Your task to perform on an android device: When is my next meeting? Image 0: 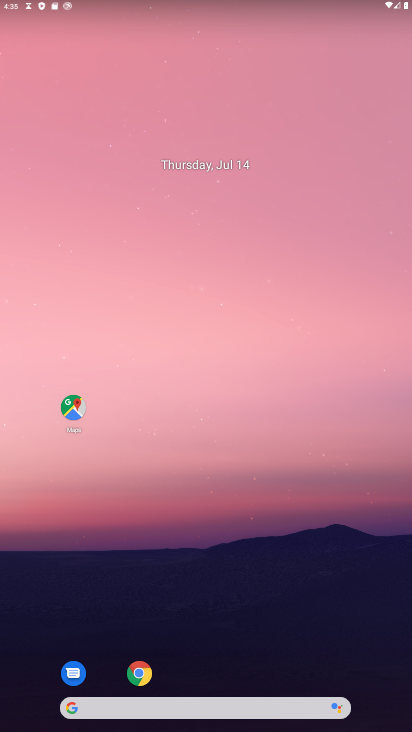
Step 0: drag from (236, 319) to (206, 199)
Your task to perform on an android device: When is my next meeting? Image 1: 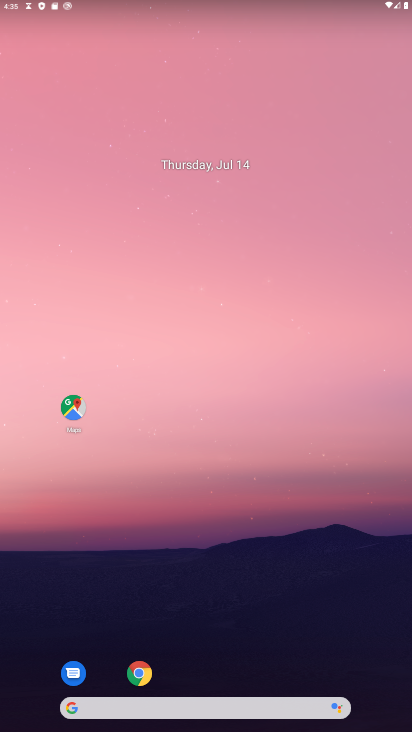
Step 1: drag from (175, 325) to (154, 85)
Your task to perform on an android device: When is my next meeting? Image 2: 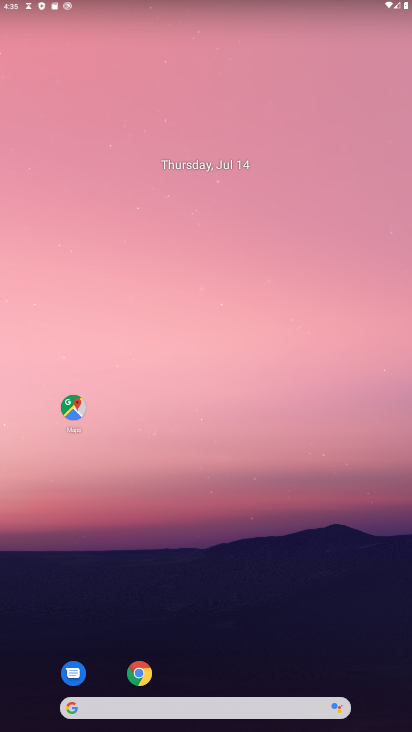
Step 2: drag from (161, 281) to (71, 12)
Your task to perform on an android device: When is my next meeting? Image 3: 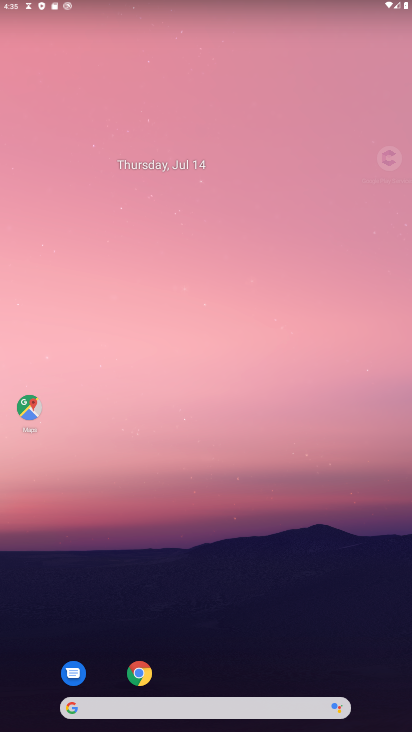
Step 3: drag from (169, 439) to (144, 78)
Your task to perform on an android device: When is my next meeting? Image 4: 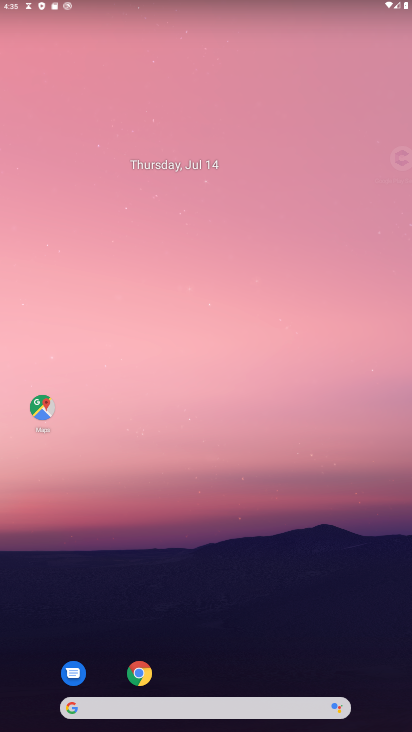
Step 4: drag from (206, 516) to (137, 143)
Your task to perform on an android device: When is my next meeting? Image 5: 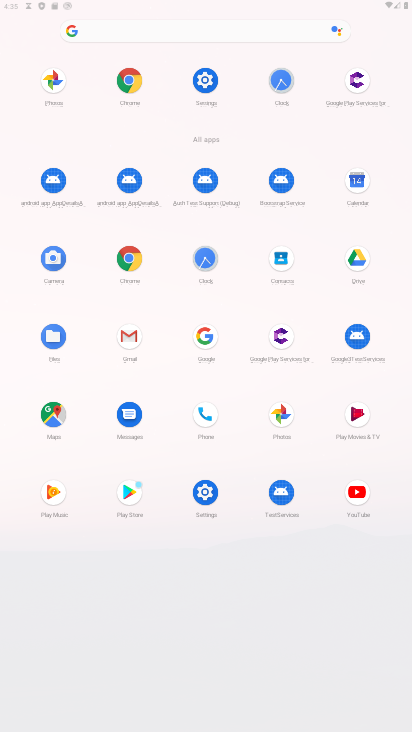
Step 5: drag from (175, 502) to (58, 18)
Your task to perform on an android device: When is my next meeting? Image 6: 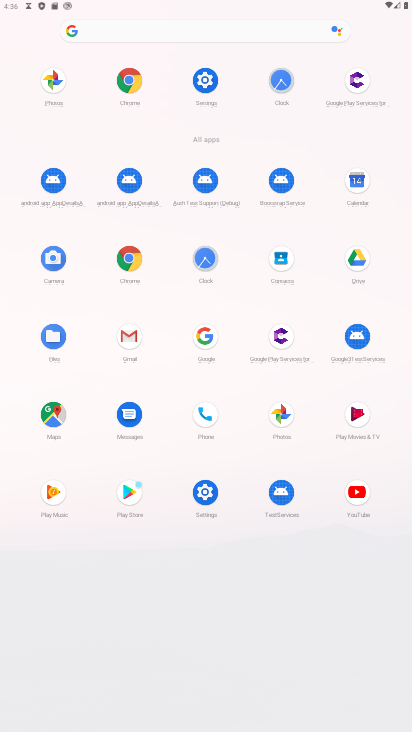
Step 6: click (276, 86)
Your task to perform on an android device: When is my next meeting? Image 7: 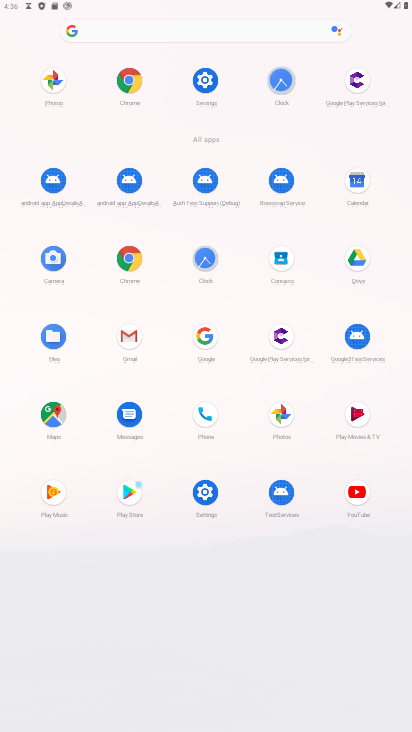
Step 7: click (283, 82)
Your task to perform on an android device: When is my next meeting? Image 8: 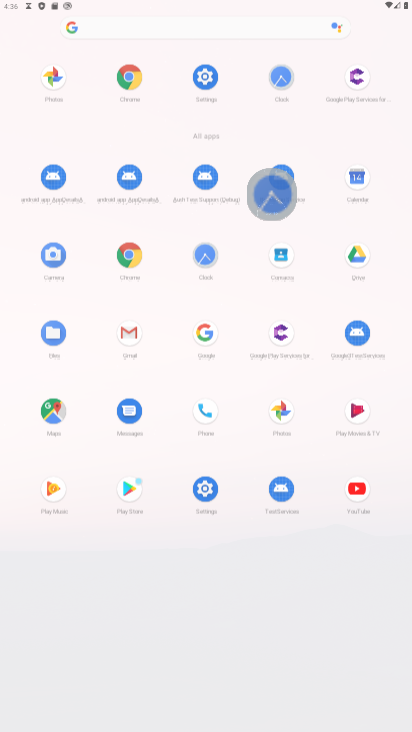
Step 8: click (283, 82)
Your task to perform on an android device: When is my next meeting? Image 9: 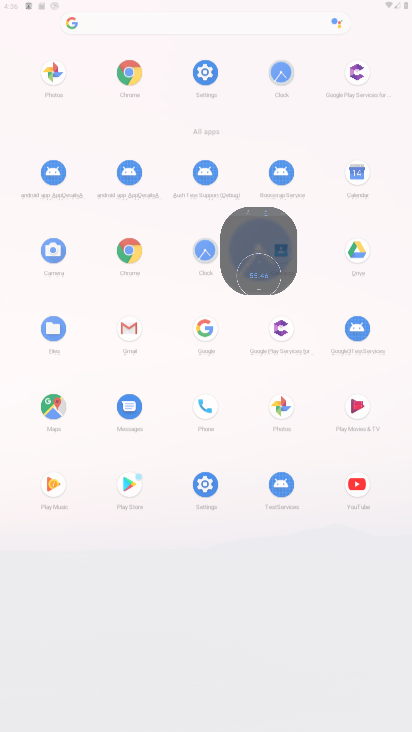
Step 9: click (283, 82)
Your task to perform on an android device: When is my next meeting? Image 10: 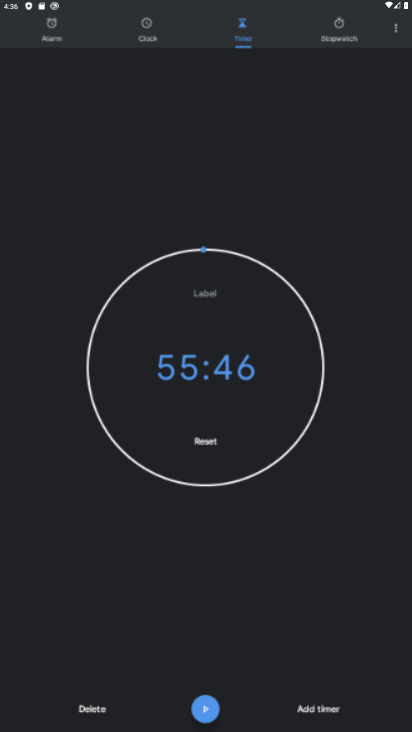
Step 10: click (283, 82)
Your task to perform on an android device: When is my next meeting? Image 11: 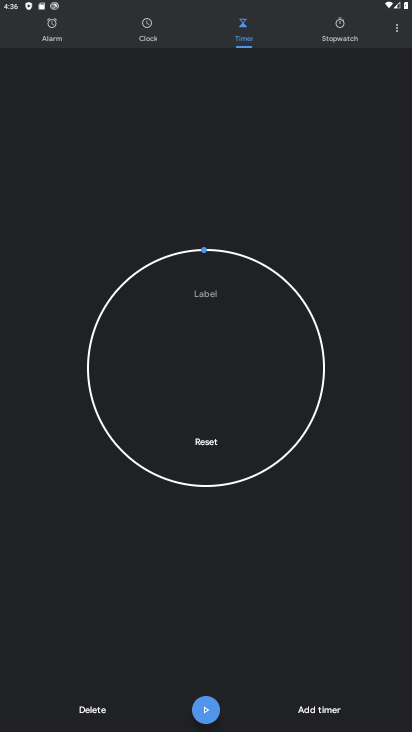
Step 11: press back button
Your task to perform on an android device: When is my next meeting? Image 12: 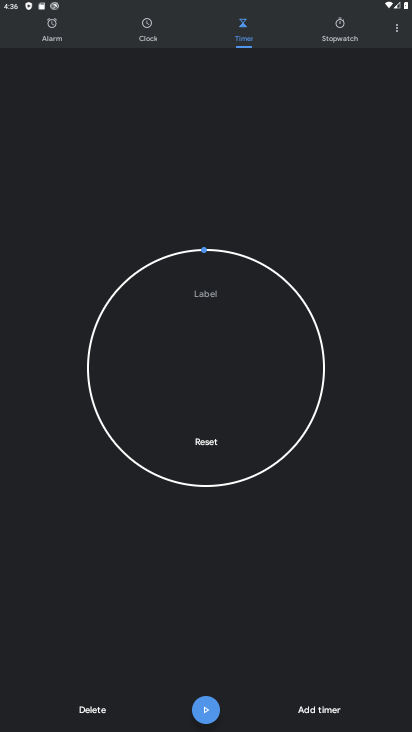
Step 12: press back button
Your task to perform on an android device: When is my next meeting? Image 13: 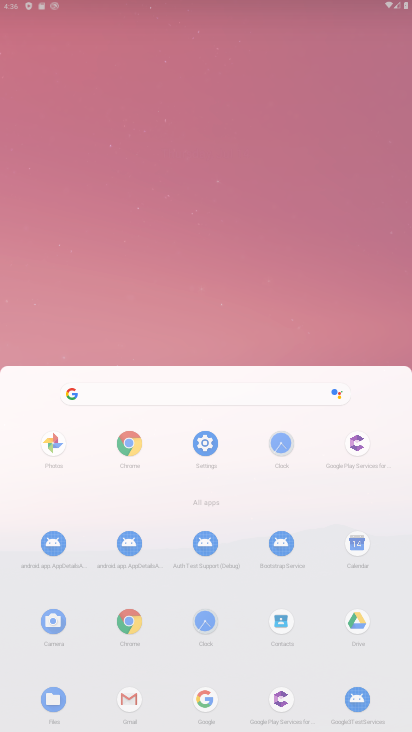
Step 13: press back button
Your task to perform on an android device: When is my next meeting? Image 14: 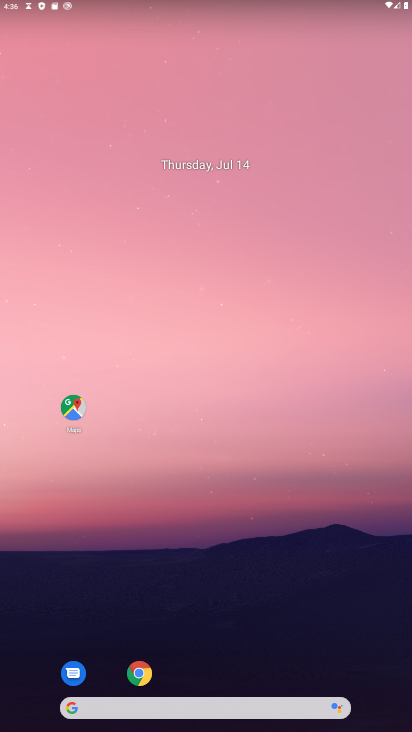
Step 14: drag from (287, 609) to (170, 146)
Your task to perform on an android device: When is my next meeting? Image 15: 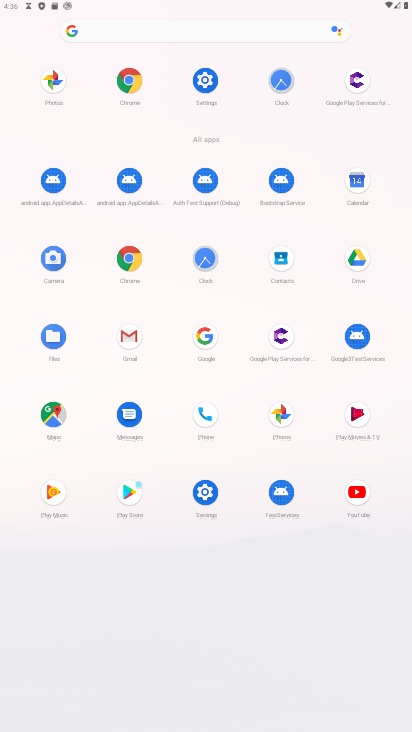
Step 15: click (196, 254)
Your task to perform on an android device: When is my next meeting? Image 16: 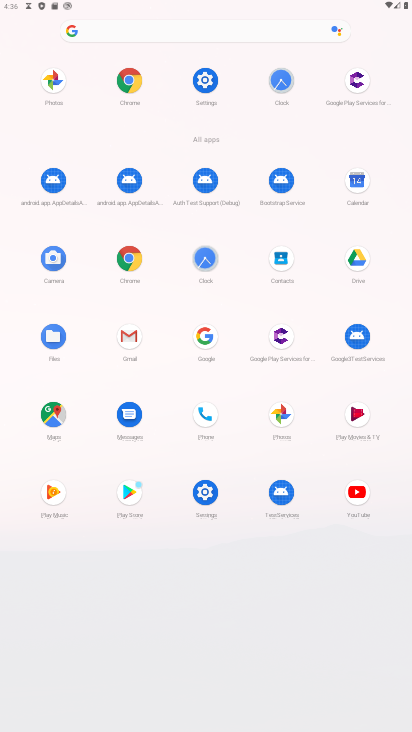
Step 16: click (196, 253)
Your task to perform on an android device: When is my next meeting? Image 17: 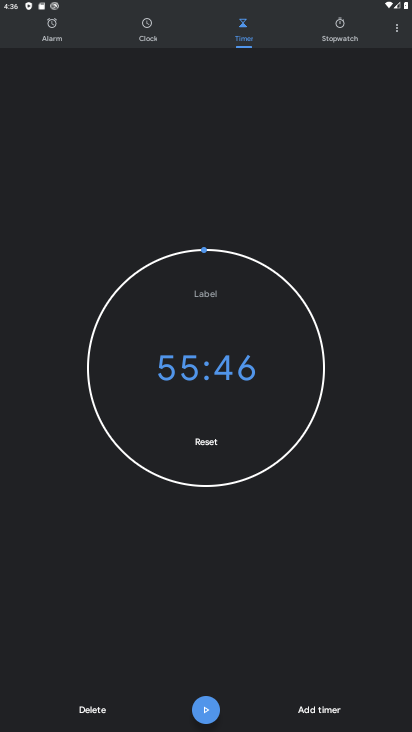
Step 17: press back button
Your task to perform on an android device: When is my next meeting? Image 18: 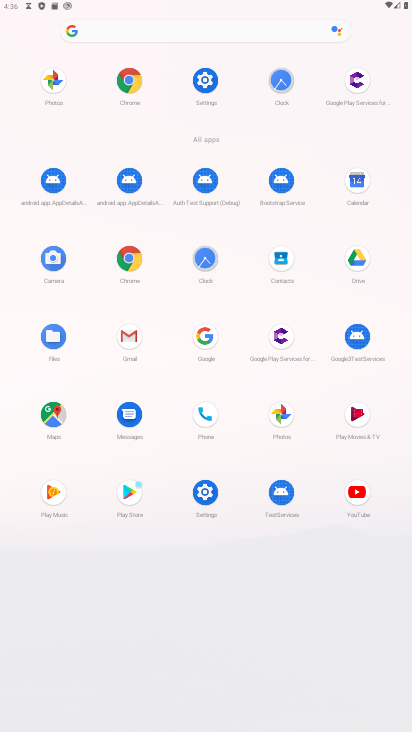
Step 18: click (356, 178)
Your task to perform on an android device: When is my next meeting? Image 19: 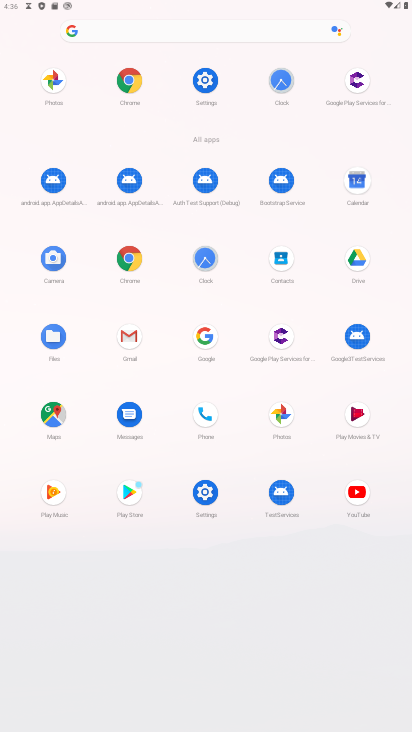
Step 19: click (359, 181)
Your task to perform on an android device: When is my next meeting? Image 20: 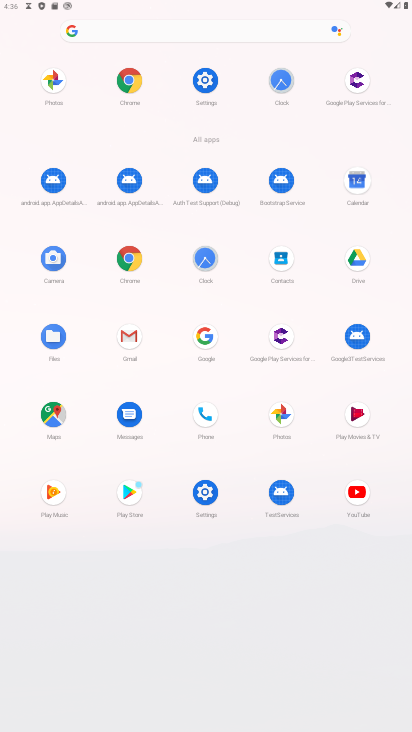
Step 20: click (359, 182)
Your task to perform on an android device: When is my next meeting? Image 21: 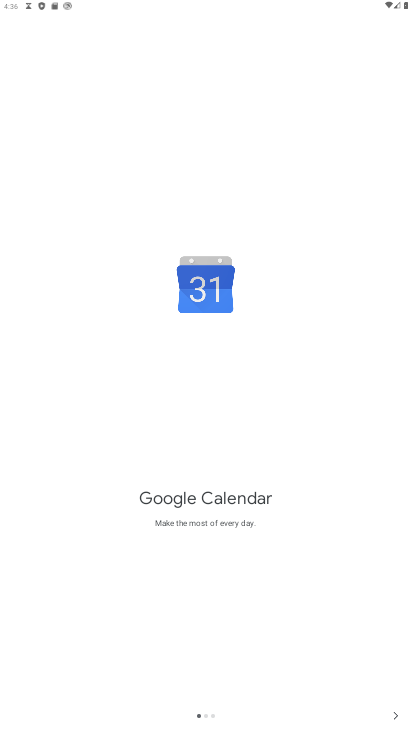
Step 21: click (397, 712)
Your task to perform on an android device: When is my next meeting? Image 22: 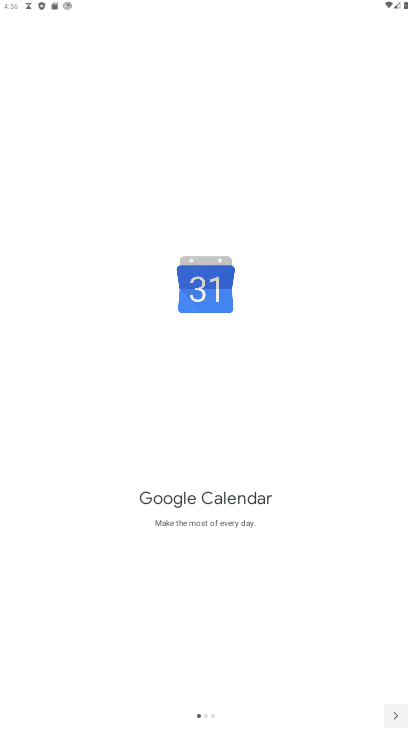
Step 22: click (397, 712)
Your task to perform on an android device: When is my next meeting? Image 23: 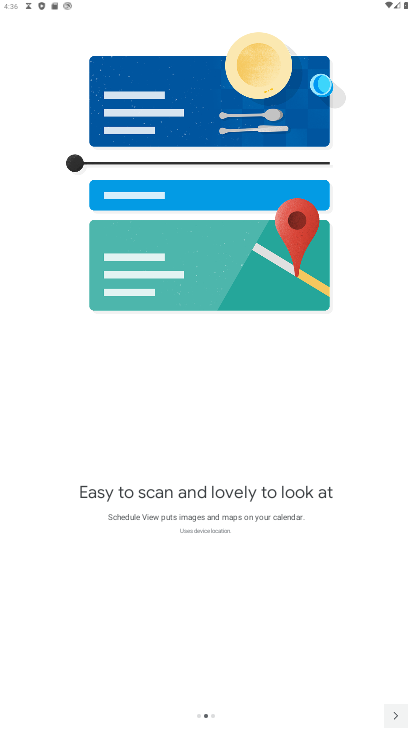
Step 23: click (396, 713)
Your task to perform on an android device: When is my next meeting? Image 24: 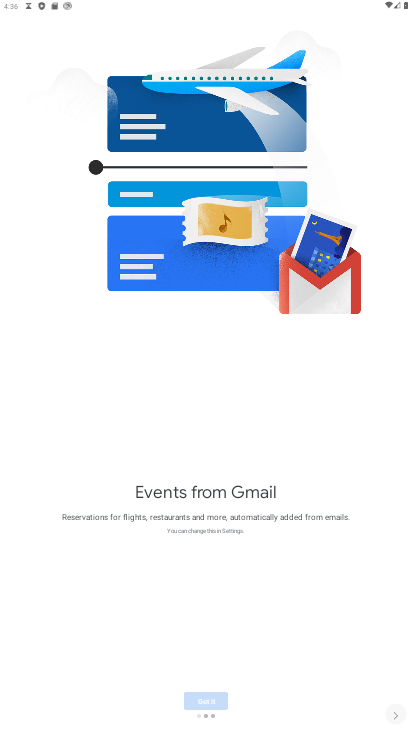
Step 24: click (395, 714)
Your task to perform on an android device: When is my next meeting? Image 25: 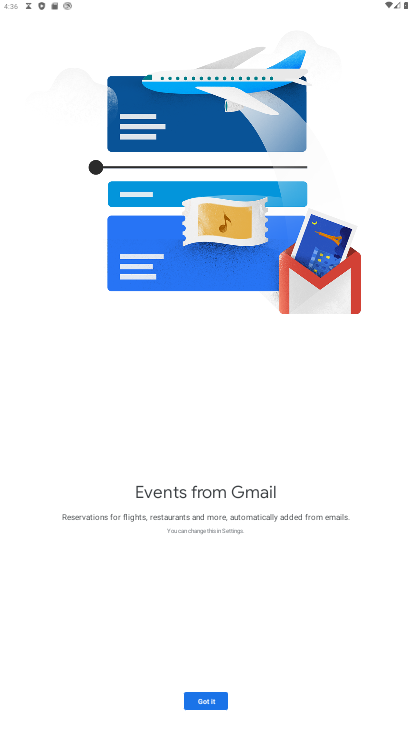
Step 25: click (207, 702)
Your task to perform on an android device: When is my next meeting? Image 26: 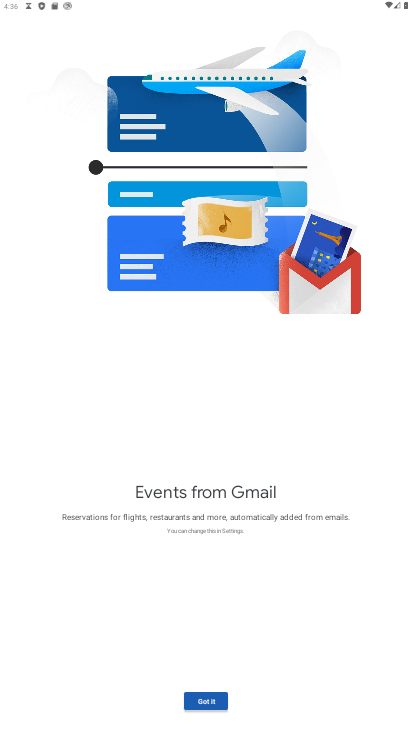
Step 26: click (207, 702)
Your task to perform on an android device: When is my next meeting? Image 27: 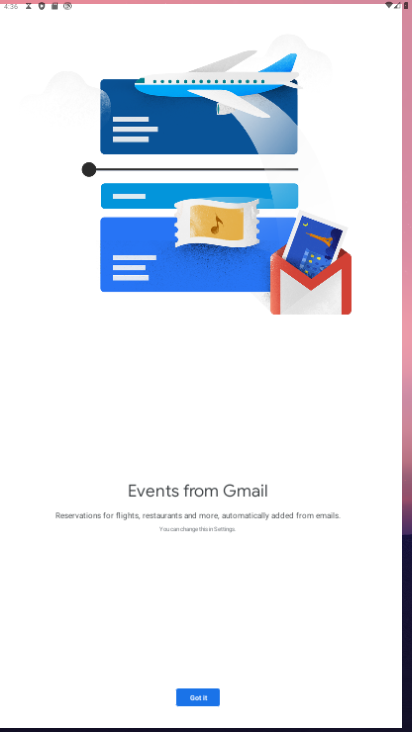
Step 27: click (210, 702)
Your task to perform on an android device: When is my next meeting? Image 28: 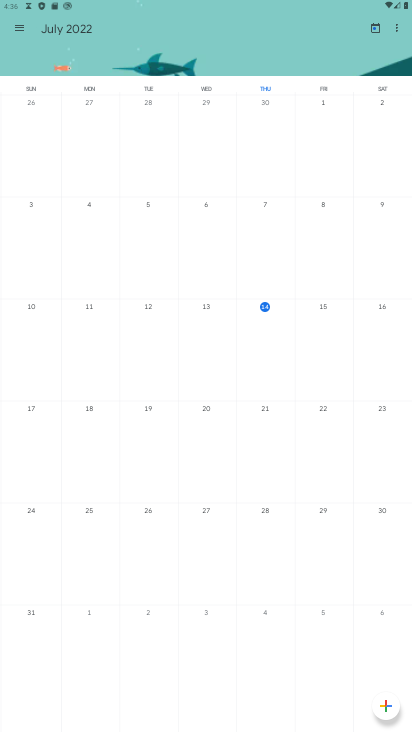
Step 28: task complete